Your task to perform on an android device: What's the weather? Image 0: 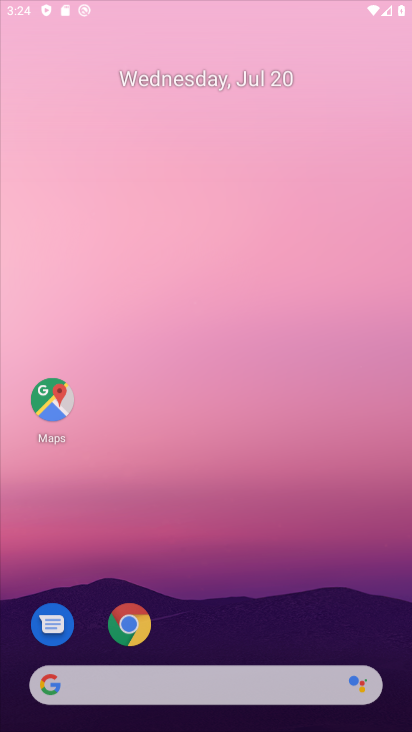
Step 0: press home button
Your task to perform on an android device: What's the weather? Image 1: 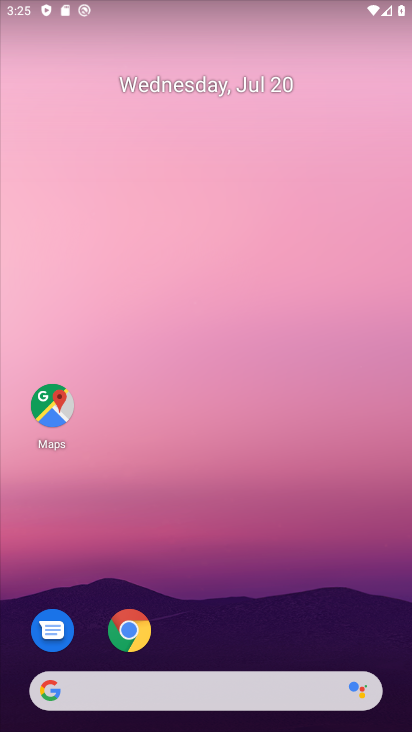
Step 1: click (51, 702)
Your task to perform on an android device: What's the weather? Image 2: 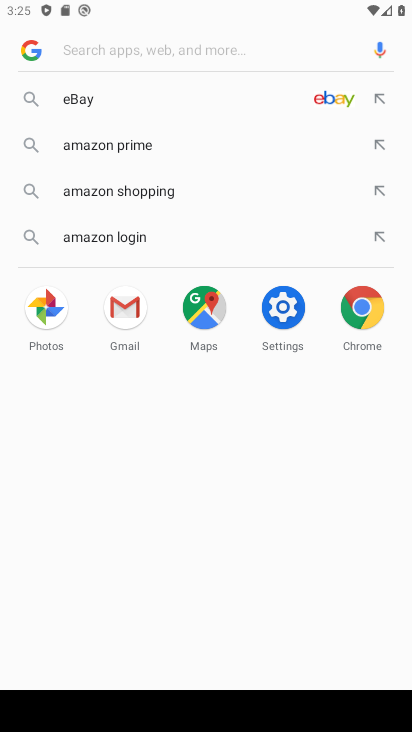
Step 2: type "weather?"
Your task to perform on an android device: What's the weather? Image 3: 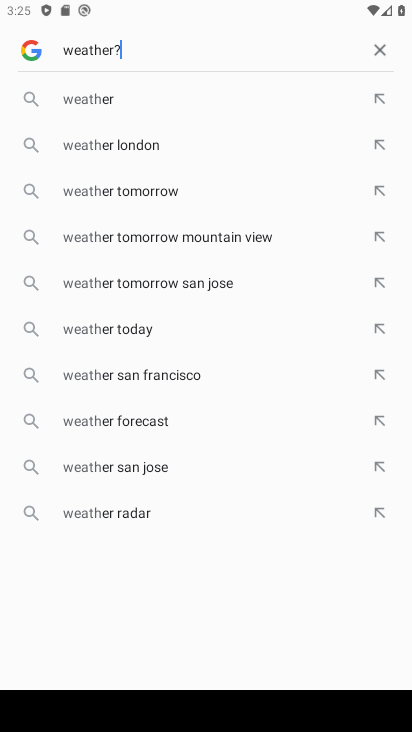
Step 3: press enter
Your task to perform on an android device: What's the weather? Image 4: 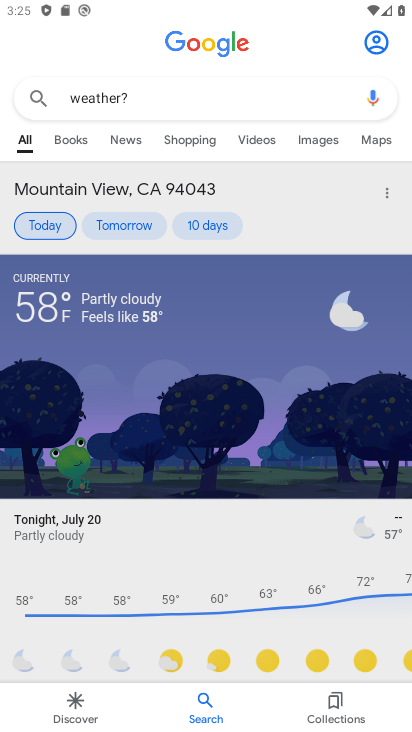
Step 4: task complete